Your task to perform on an android device: toggle location history Image 0: 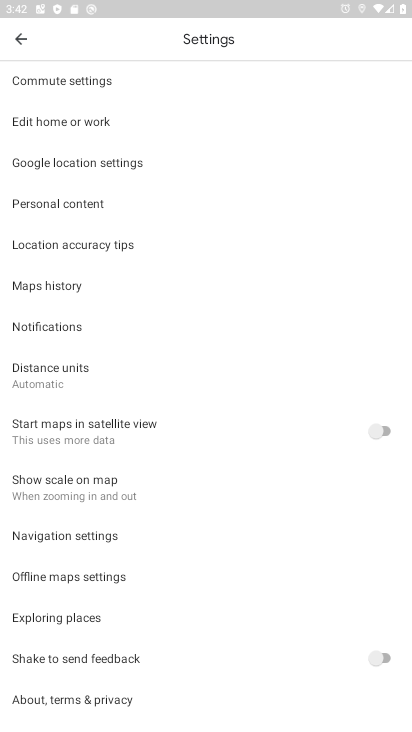
Step 0: press home button
Your task to perform on an android device: toggle location history Image 1: 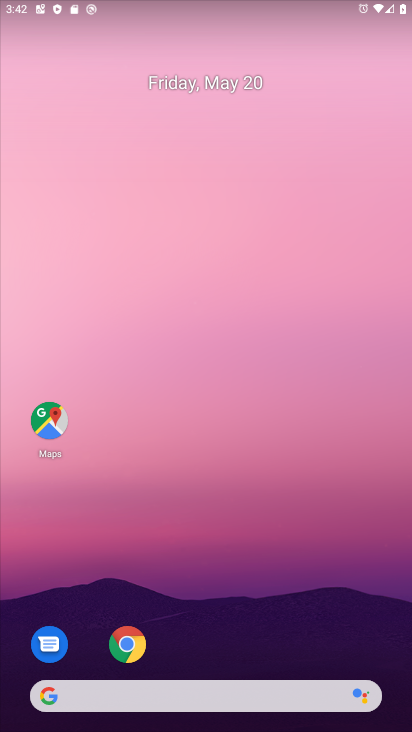
Step 1: drag from (227, 610) to (173, 183)
Your task to perform on an android device: toggle location history Image 2: 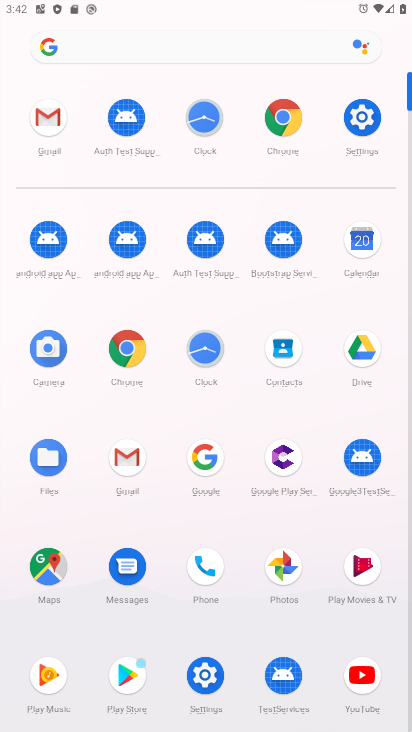
Step 2: click (370, 143)
Your task to perform on an android device: toggle location history Image 3: 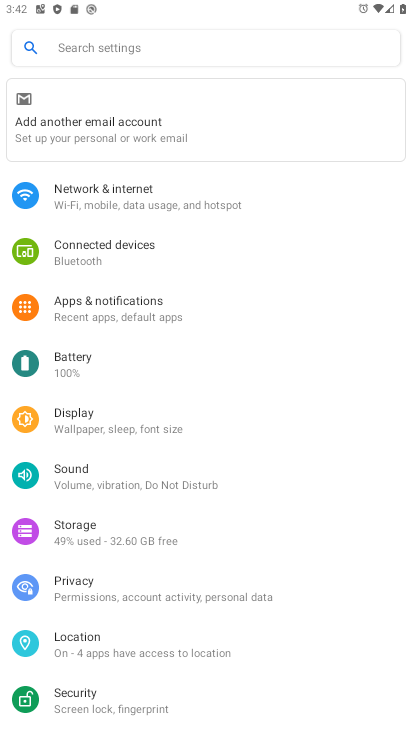
Step 3: click (171, 642)
Your task to perform on an android device: toggle location history Image 4: 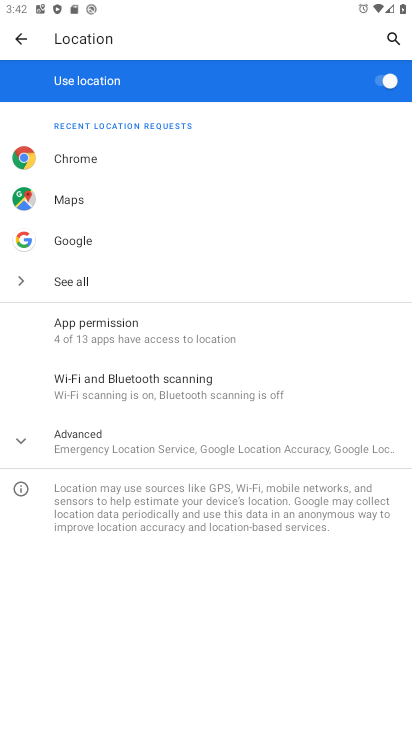
Step 4: click (122, 446)
Your task to perform on an android device: toggle location history Image 5: 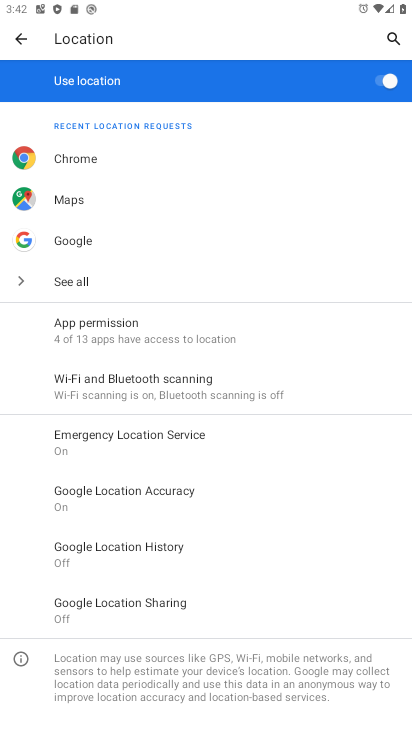
Step 5: click (119, 545)
Your task to perform on an android device: toggle location history Image 6: 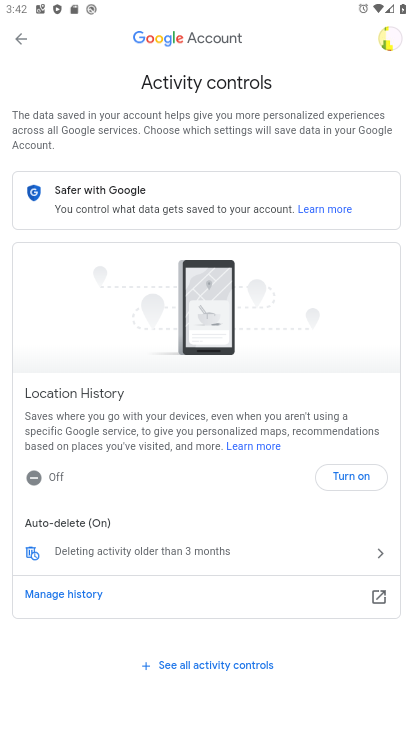
Step 6: click (332, 478)
Your task to perform on an android device: toggle location history Image 7: 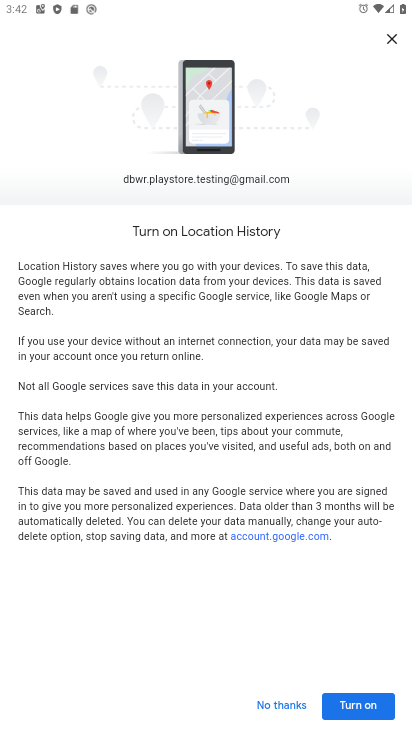
Step 7: click (332, 713)
Your task to perform on an android device: toggle location history Image 8: 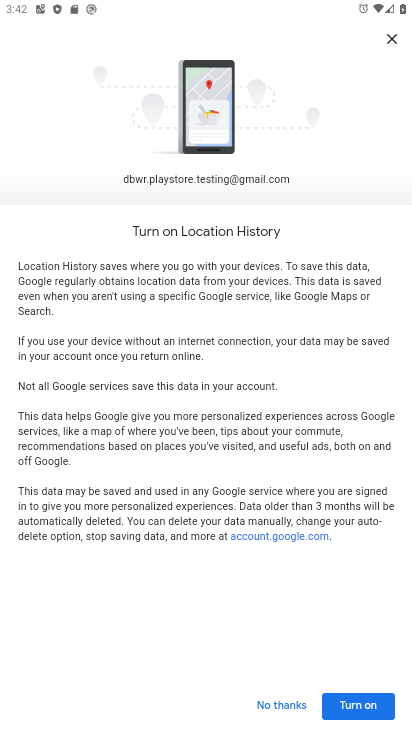
Step 8: click (332, 713)
Your task to perform on an android device: toggle location history Image 9: 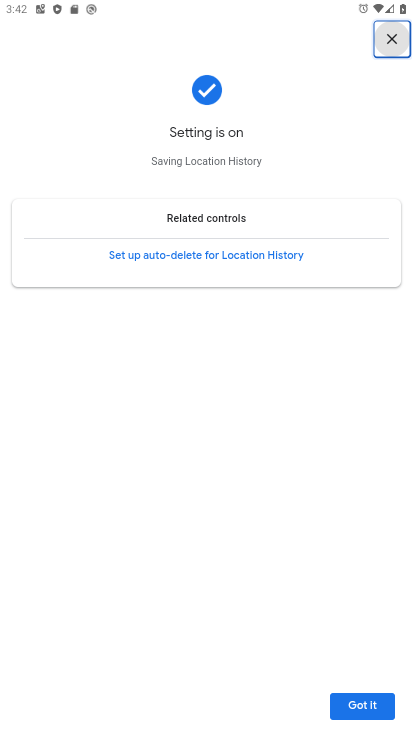
Step 9: click (332, 713)
Your task to perform on an android device: toggle location history Image 10: 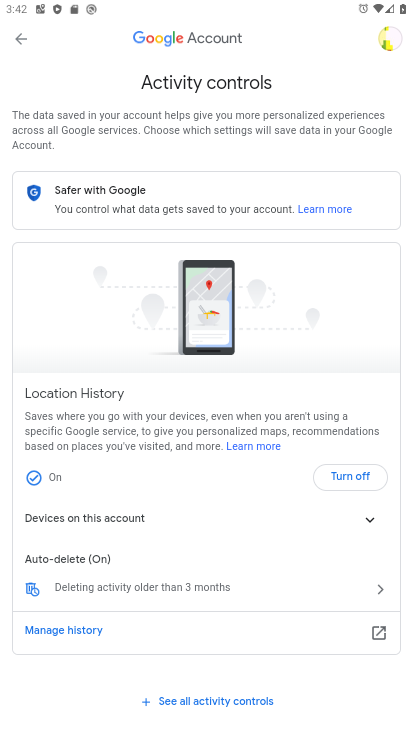
Step 10: task complete